Your task to perform on an android device: add a contact Image 0: 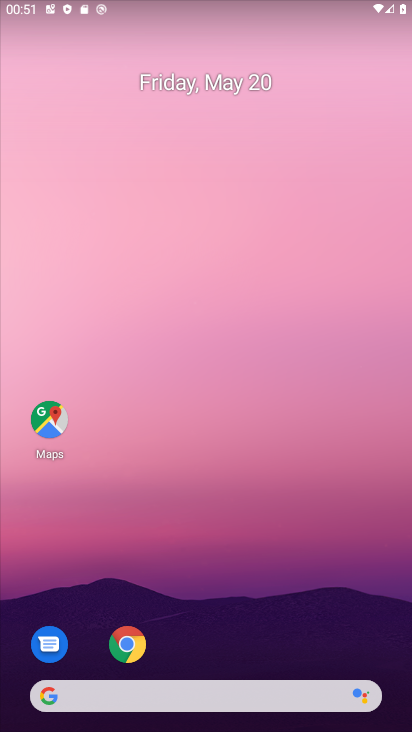
Step 0: drag from (375, 661) to (328, 9)
Your task to perform on an android device: add a contact Image 1: 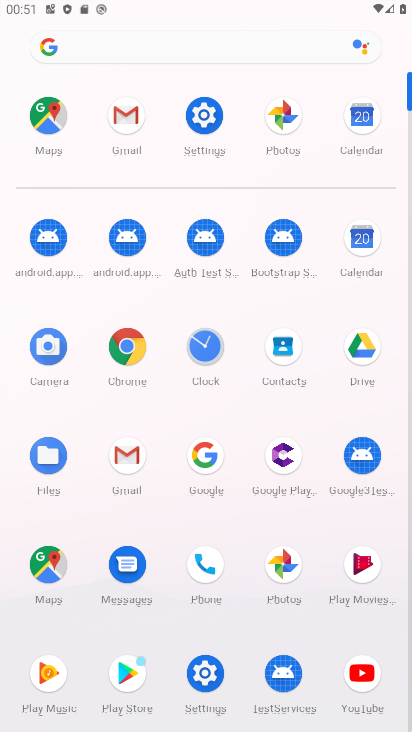
Step 1: click (275, 346)
Your task to perform on an android device: add a contact Image 2: 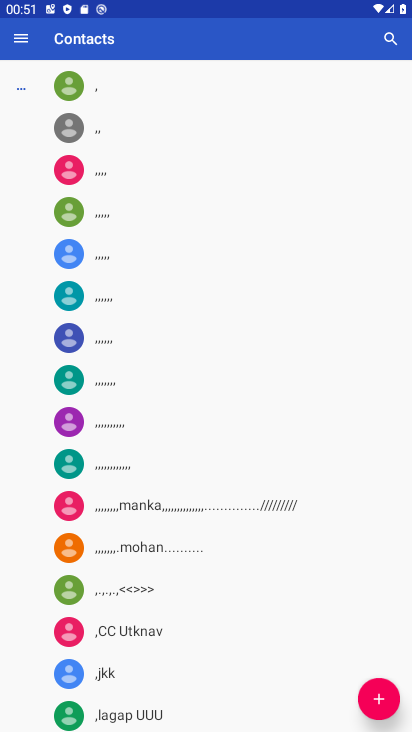
Step 2: click (381, 692)
Your task to perform on an android device: add a contact Image 3: 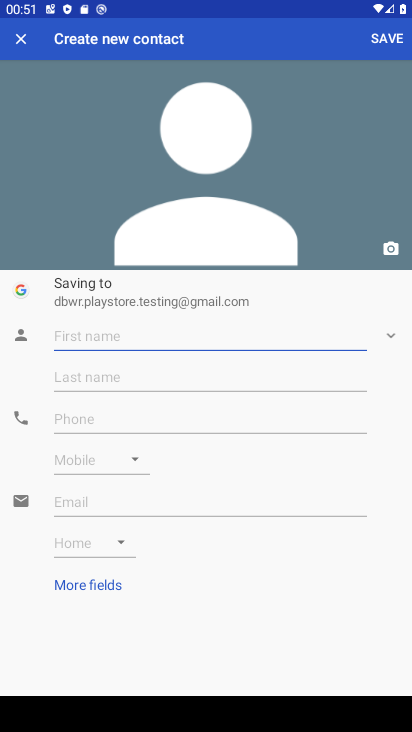
Step 3: click (168, 341)
Your task to perform on an android device: add a contact Image 4: 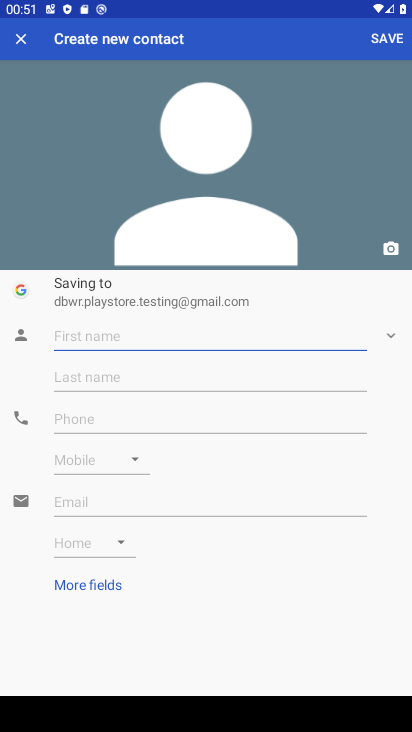
Step 4: type "sis"
Your task to perform on an android device: add a contact Image 5: 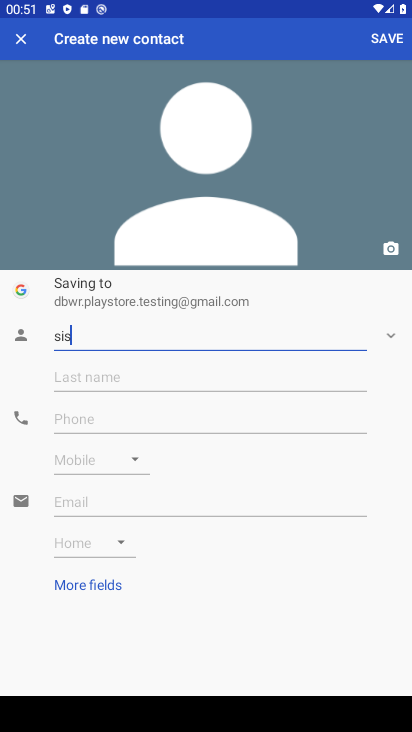
Step 5: click (106, 405)
Your task to perform on an android device: add a contact Image 6: 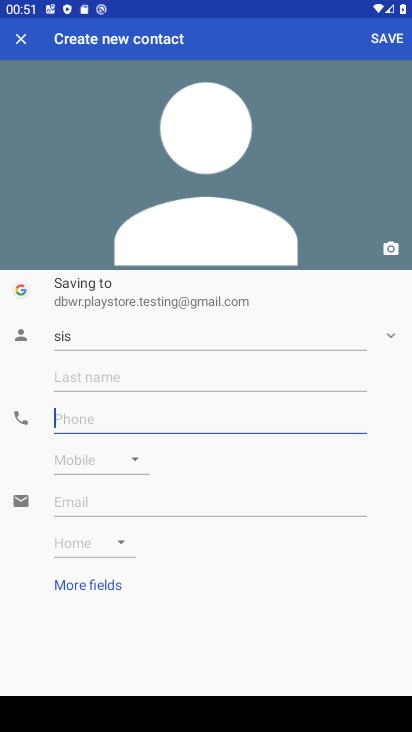
Step 6: type "98765443637"
Your task to perform on an android device: add a contact Image 7: 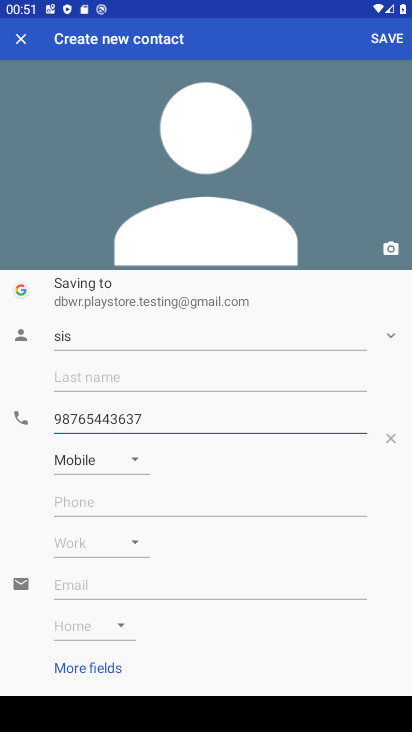
Step 7: click (384, 42)
Your task to perform on an android device: add a contact Image 8: 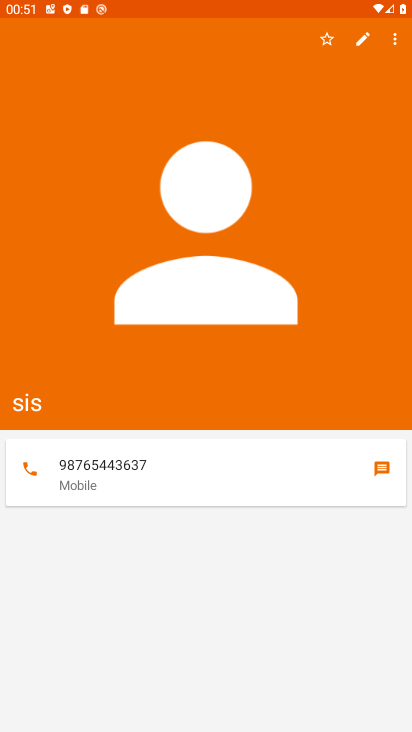
Step 8: task complete